Your task to perform on an android device: turn on improve location accuracy Image 0: 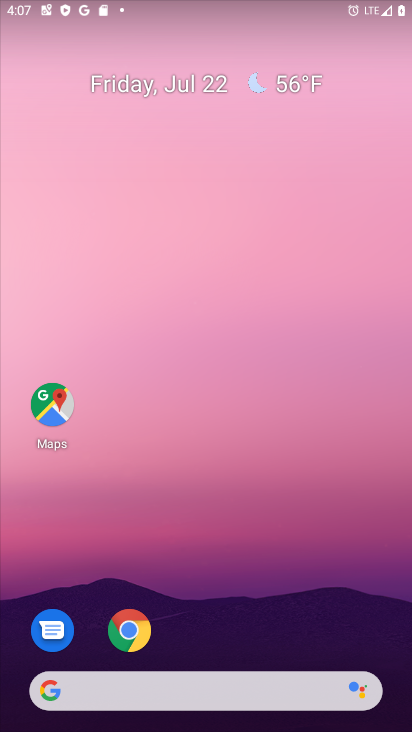
Step 0: drag from (200, 690) to (171, 314)
Your task to perform on an android device: turn on improve location accuracy Image 1: 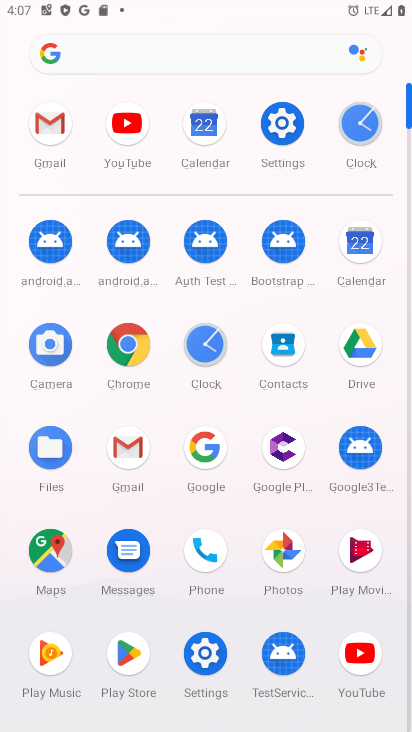
Step 1: click (277, 129)
Your task to perform on an android device: turn on improve location accuracy Image 2: 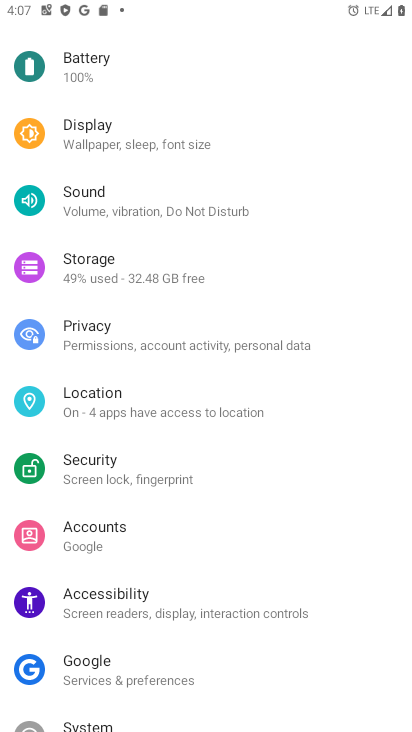
Step 2: click (108, 415)
Your task to perform on an android device: turn on improve location accuracy Image 3: 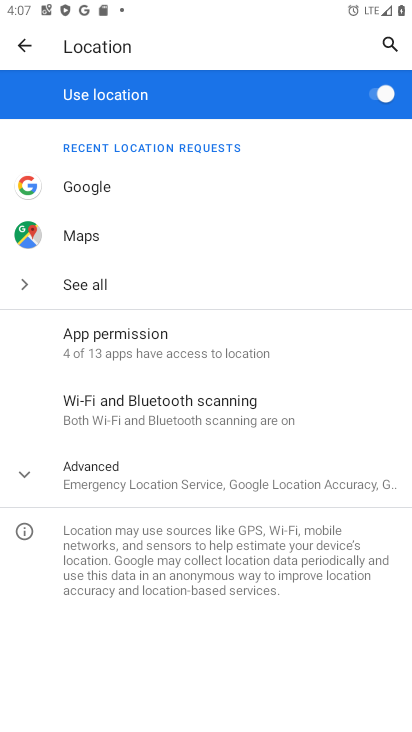
Step 3: click (136, 475)
Your task to perform on an android device: turn on improve location accuracy Image 4: 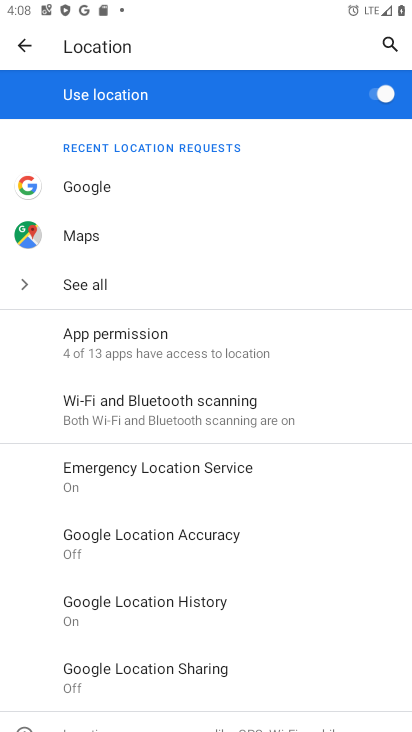
Step 4: click (183, 538)
Your task to perform on an android device: turn on improve location accuracy Image 5: 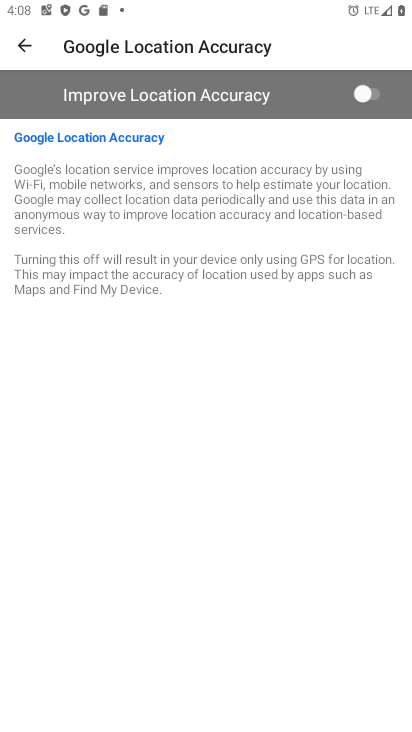
Step 5: click (378, 96)
Your task to perform on an android device: turn on improve location accuracy Image 6: 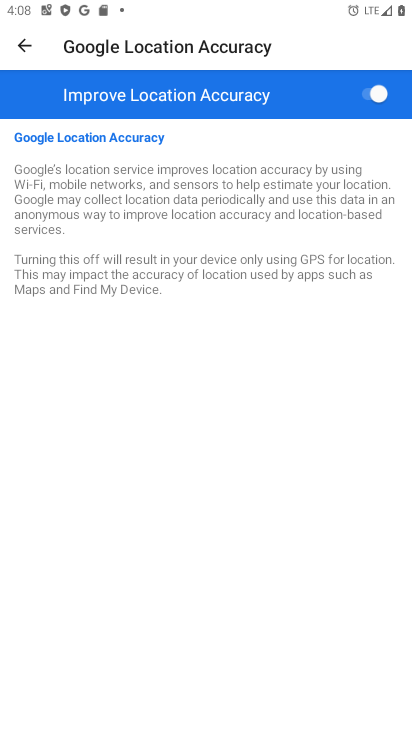
Step 6: task complete